Your task to perform on an android device: What's the weather going to be this weekend? Image 0: 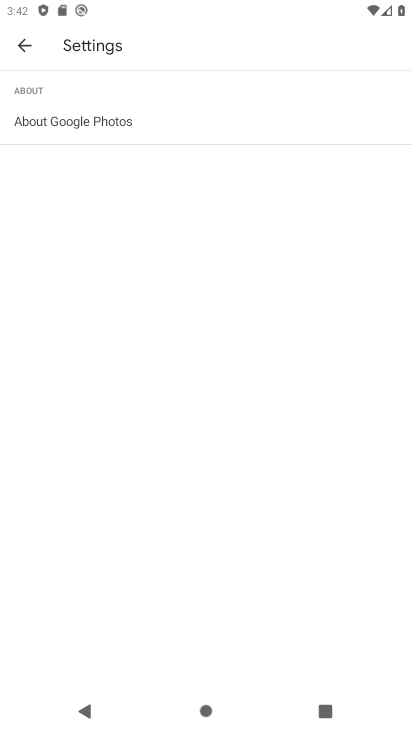
Step 0: press home button
Your task to perform on an android device: What's the weather going to be this weekend? Image 1: 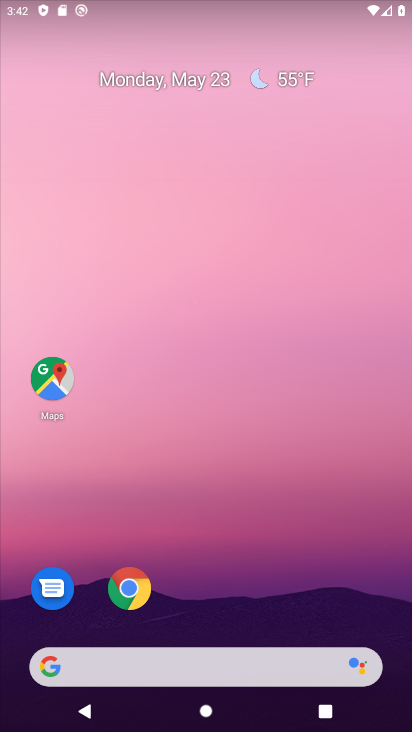
Step 1: drag from (236, 584) to (256, 97)
Your task to perform on an android device: What's the weather going to be this weekend? Image 2: 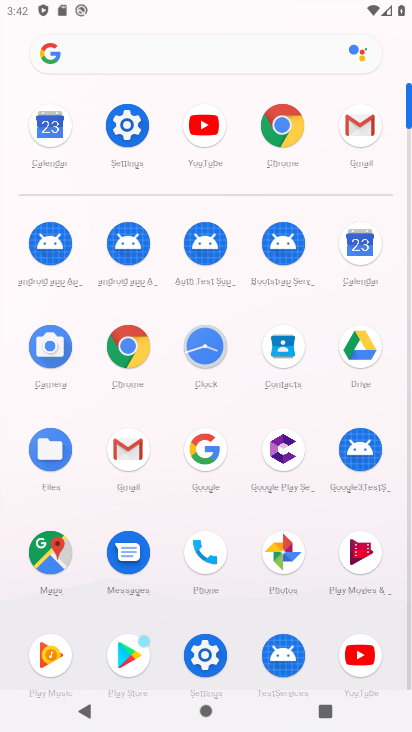
Step 2: click (205, 456)
Your task to perform on an android device: What's the weather going to be this weekend? Image 3: 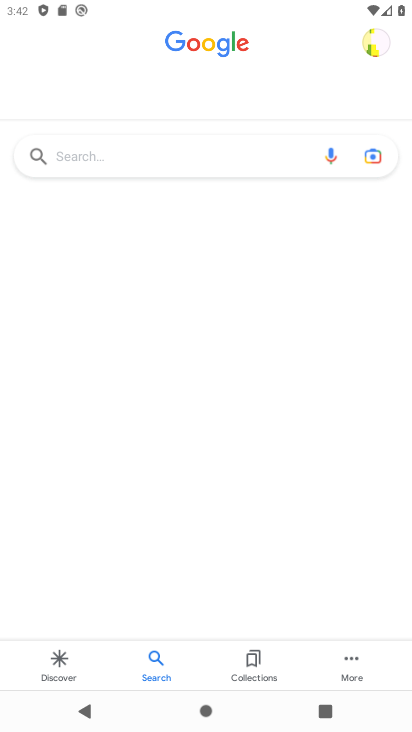
Step 3: click (144, 169)
Your task to perform on an android device: What's the weather going to be this weekend? Image 4: 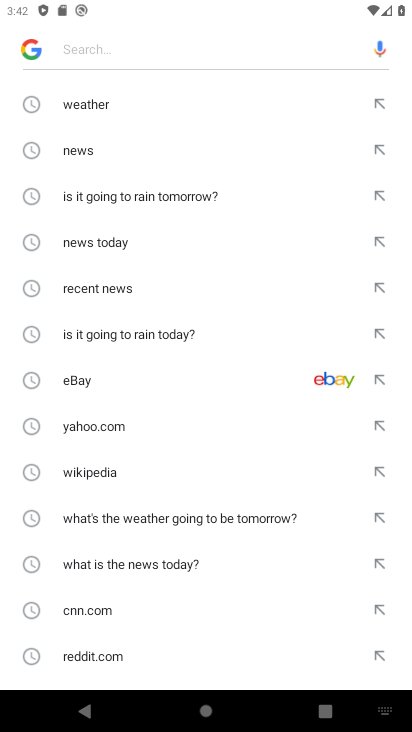
Step 4: type "weather going to be this weekend"
Your task to perform on an android device: What's the weather going to be this weekend? Image 5: 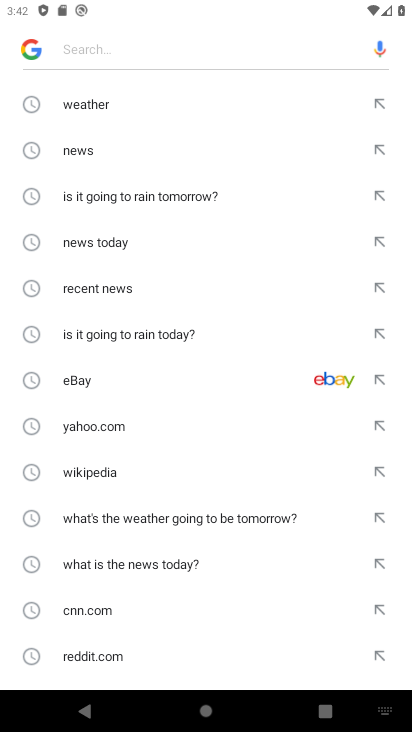
Step 5: click (138, 48)
Your task to perform on an android device: What's the weather going to be this weekend? Image 6: 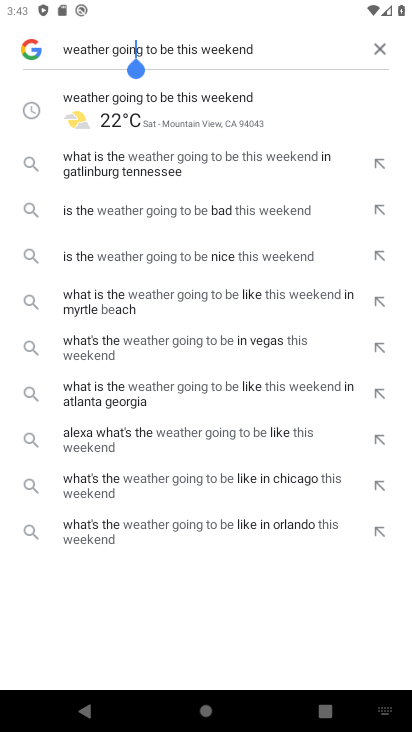
Step 6: click (167, 117)
Your task to perform on an android device: What's the weather going to be this weekend? Image 7: 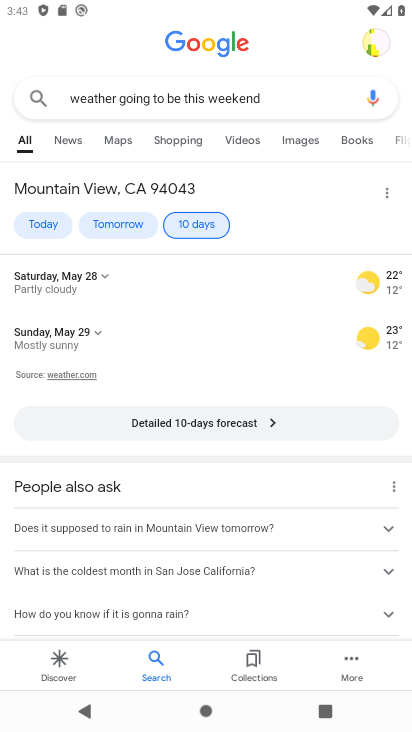
Step 7: task complete